Your task to perform on an android device: Open the stopwatch Image 0: 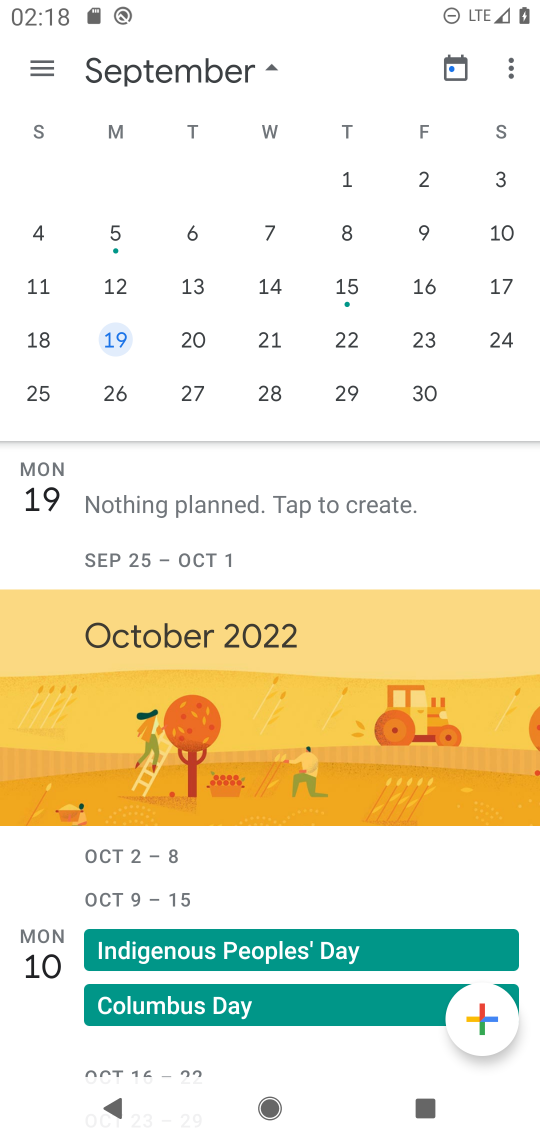
Step 0: press home button
Your task to perform on an android device: Open the stopwatch Image 1: 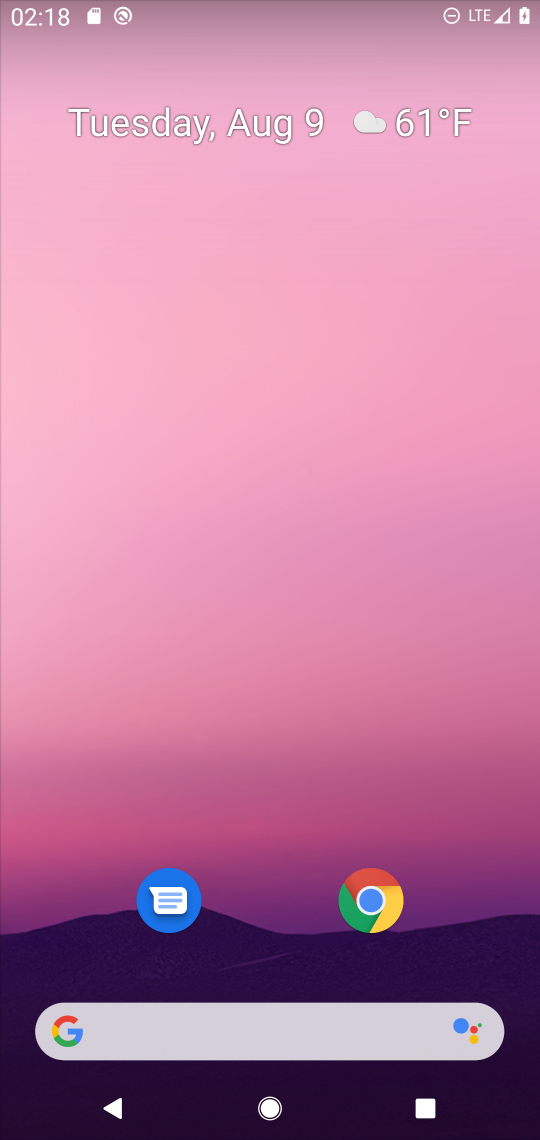
Step 1: drag from (275, 881) to (312, 177)
Your task to perform on an android device: Open the stopwatch Image 2: 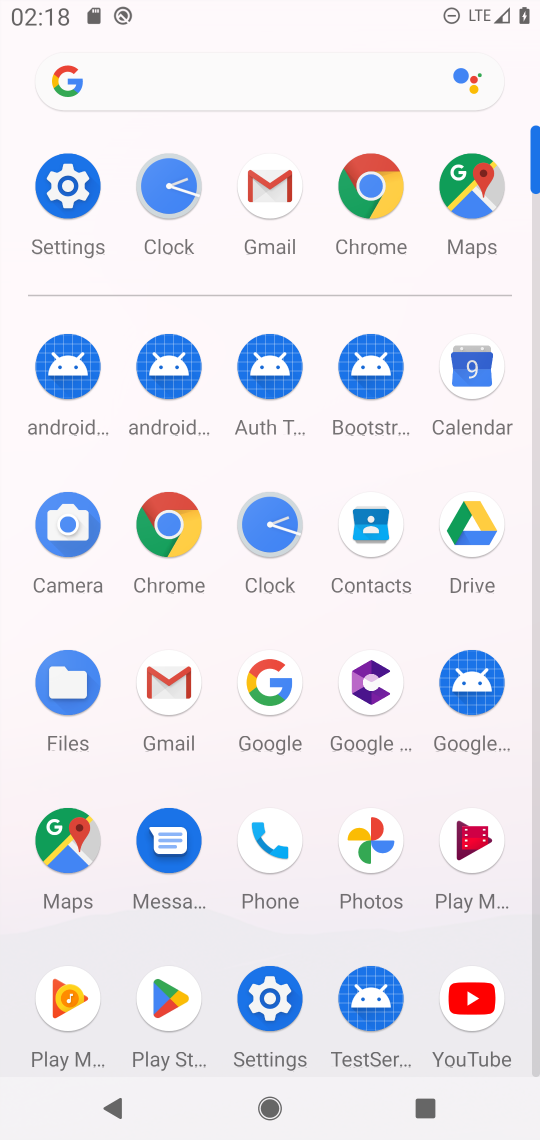
Step 2: click (269, 528)
Your task to perform on an android device: Open the stopwatch Image 3: 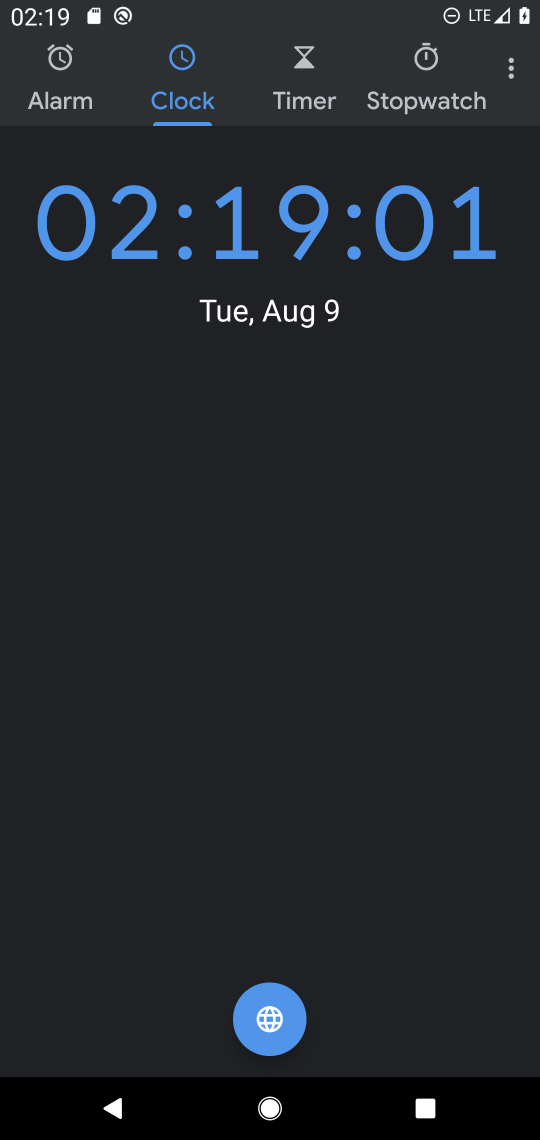
Step 3: click (433, 81)
Your task to perform on an android device: Open the stopwatch Image 4: 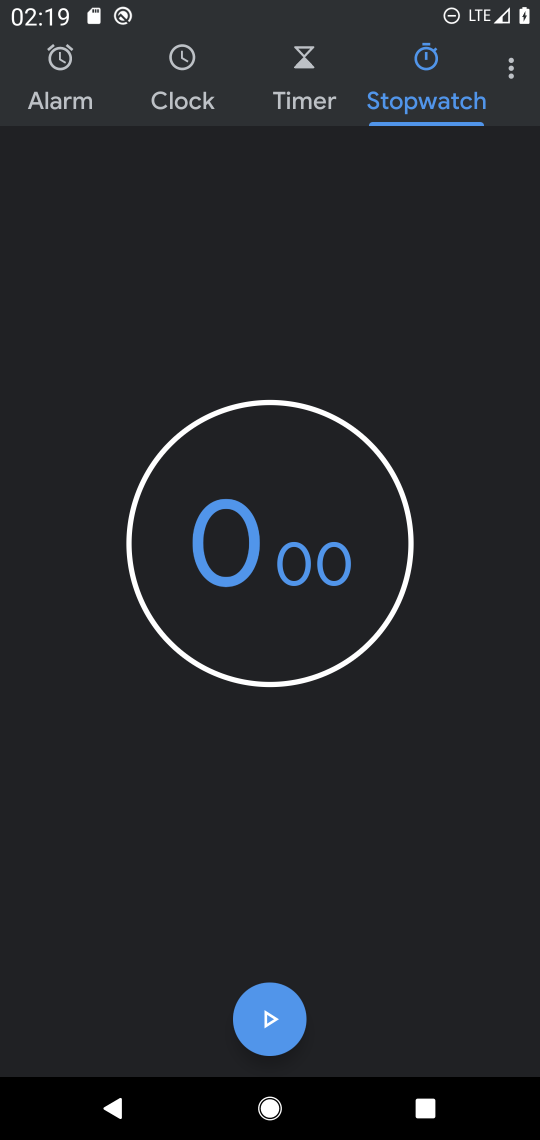
Step 4: task complete